Your task to perform on an android device: Go to battery settings Image 0: 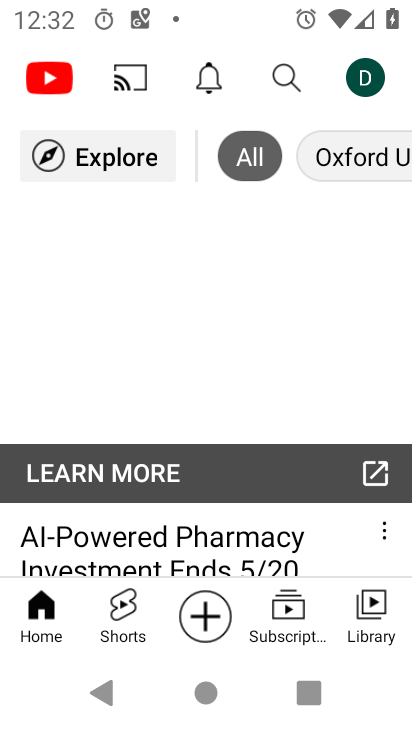
Step 0: press home button
Your task to perform on an android device: Go to battery settings Image 1: 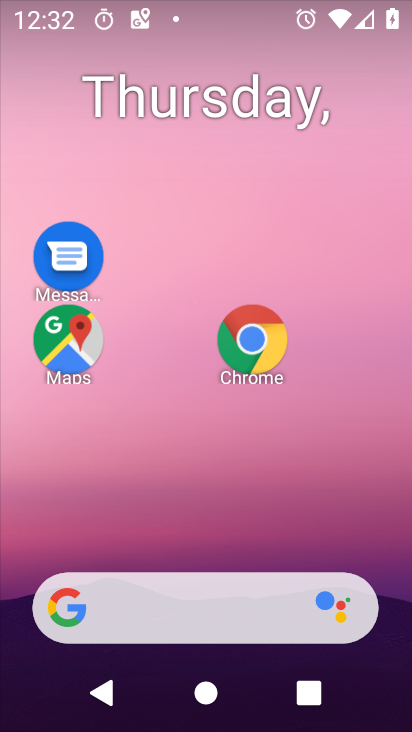
Step 1: drag from (216, 523) to (217, 43)
Your task to perform on an android device: Go to battery settings Image 2: 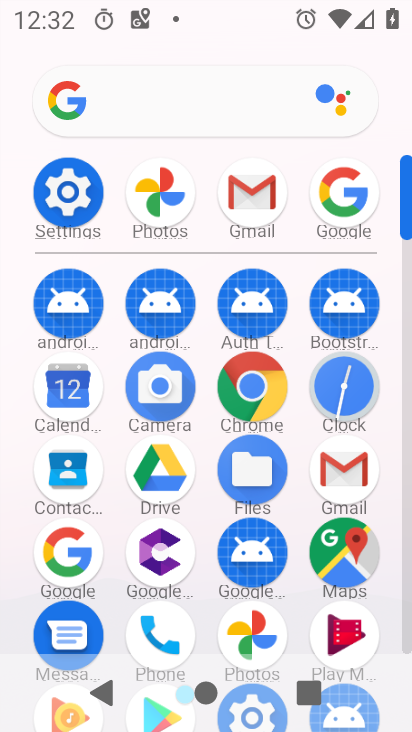
Step 2: click (64, 194)
Your task to perform on an android device: Go to battery settings Image 3: 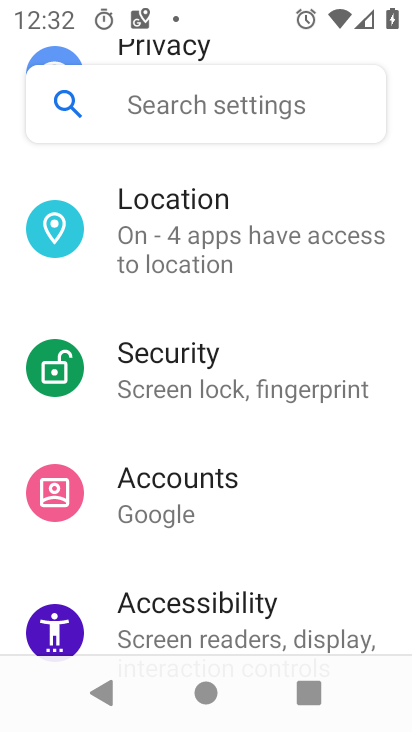
Step 3: drag from (230, 278) to (279, 634)
Your task to perform on an android device: Go to battery settings Image 4: 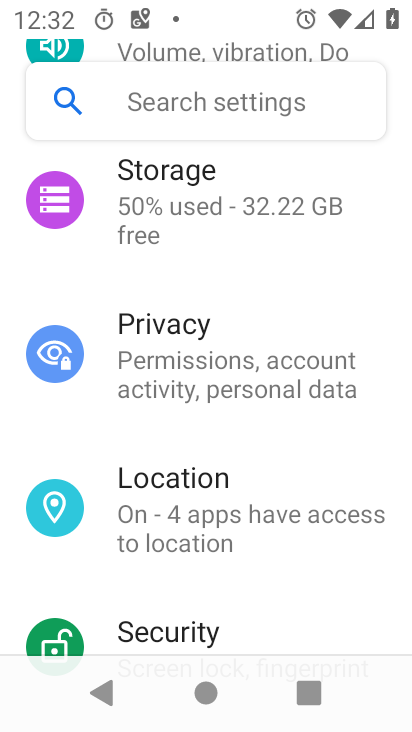
Step 4: drag from (194, 262) to (259, 601)
Your task to perform on an android device: Go to battery settings Image 5: 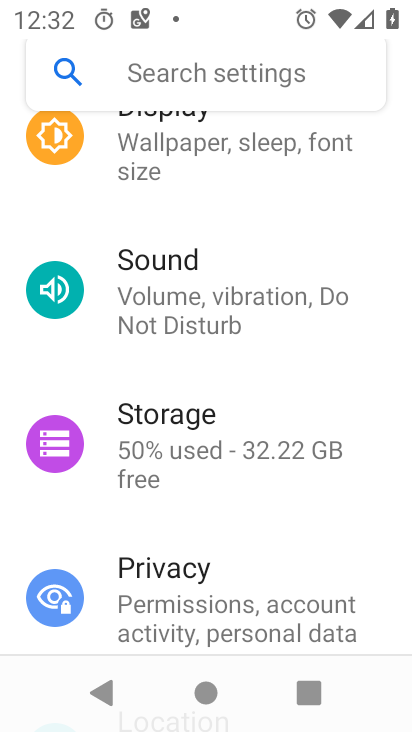
Step 5: drag from (170, 211) to (247, 584)
Your task to perform on an android device: Go to battery settings Image 6: 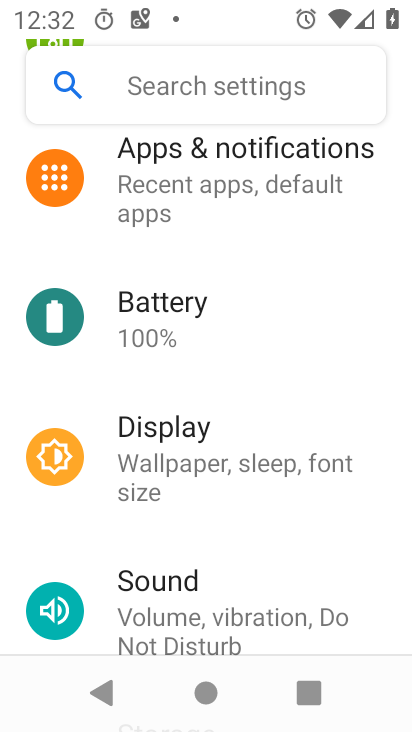
Step 6: click (177, 328)
Your task to perform on an android device: Go to battery settings Image 7: 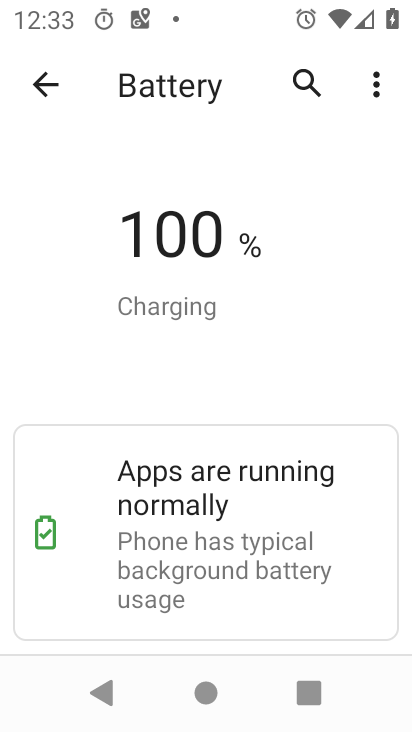
Step 7: task complete